Your task to perform on an android device: Open maps Image 0: 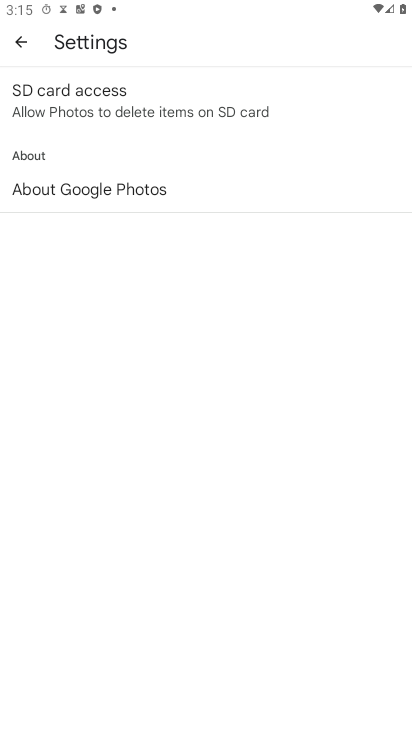
Step 0: press home button
Your task to perform on an android device: Open maps Image 1: 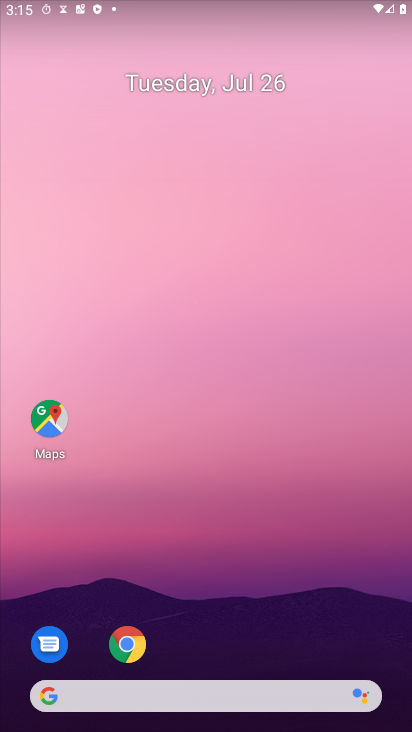
Step 1: press home button
Your task to perform on an android device: Open maps Image 2: 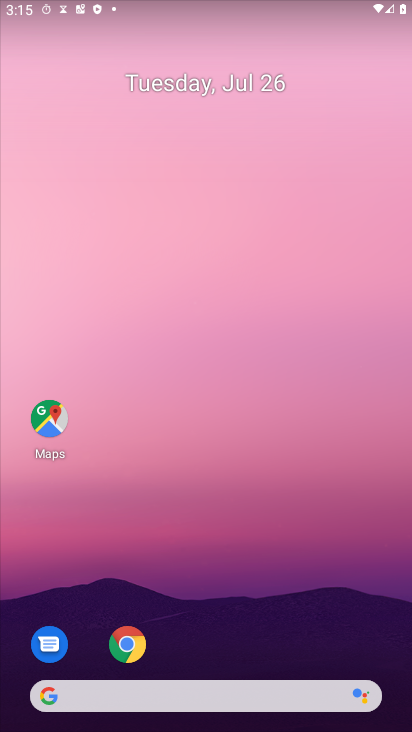
Step 2: click (50, 424)
Your task to perform on an android device: Open maps Image 3: 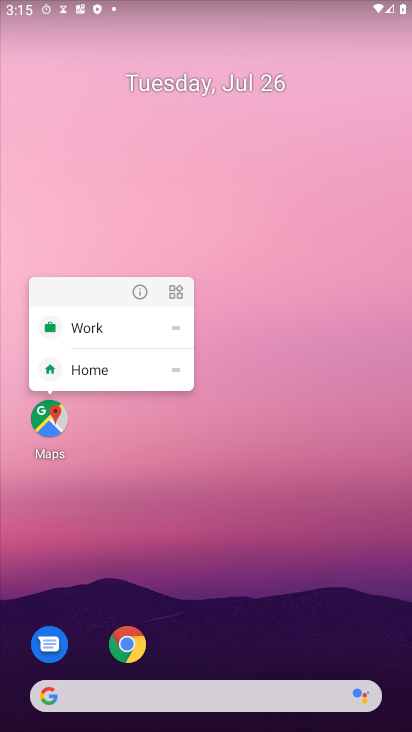
Step 3: click (52, 421)
Your task to perform on an android device: Open maps Image 4: 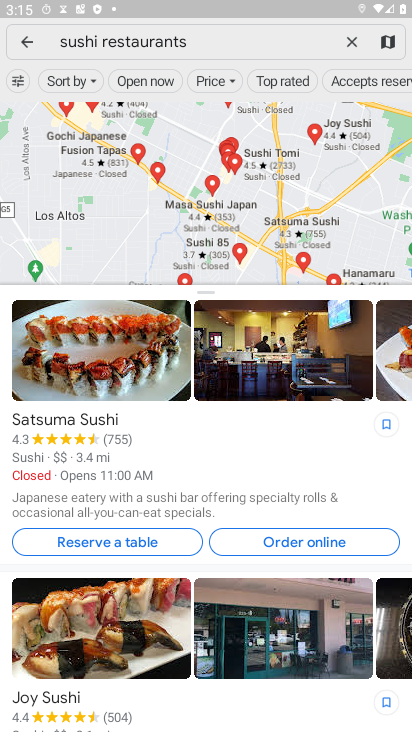
Step 4: click (26, 39)
Your task to perform on an android device: Open maps Image 5: 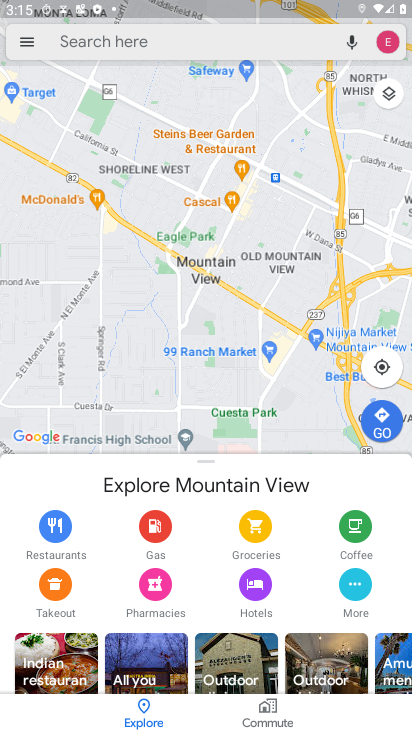
Step 5: task complete